Your task to perform on an android device: change text size in settings app Image 0: 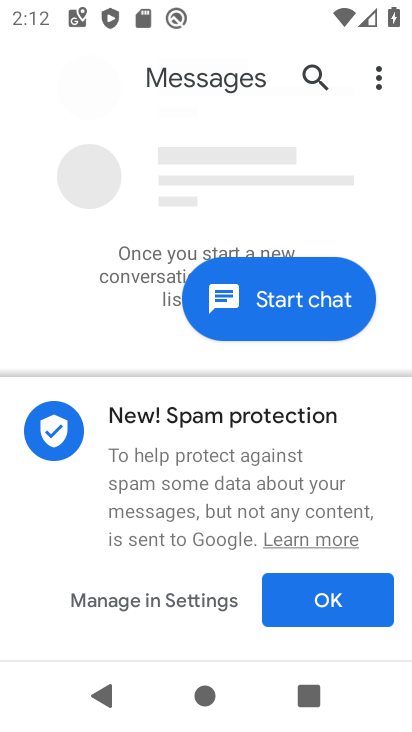
Step 0: press home button
Your task to perform on an android device: change text size in settings app Image 1: 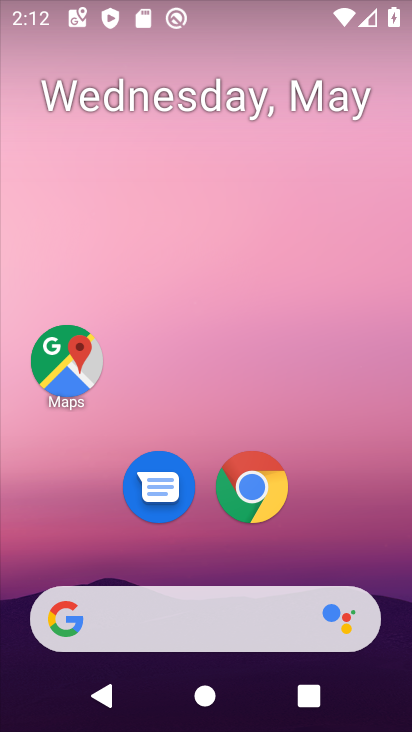
Step 1: drag from (337, 542) to (294, 45)
Your task to perform on an android device: change text size in settings app Image 2: 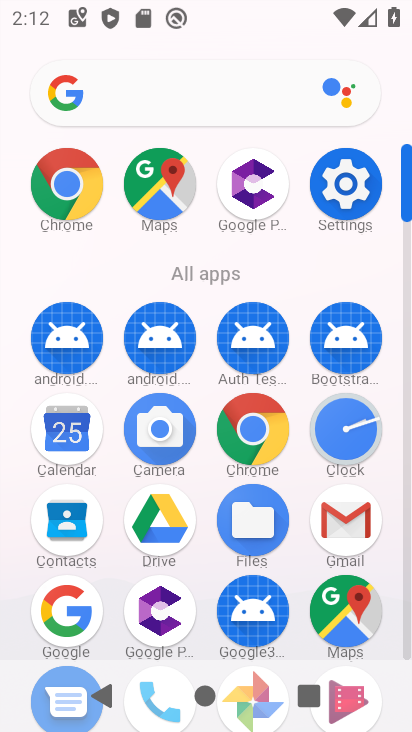
Step 2: click (364, 173)
Your task to perform on an android device: change text size in settings app Image 3: 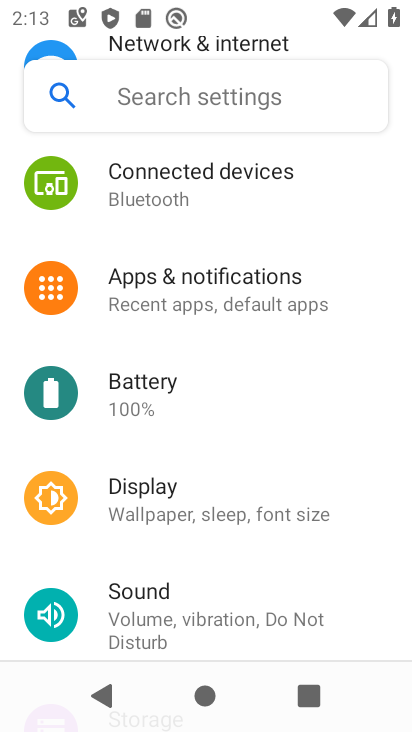
Step 3: click (262, 487)
Your task to perform on an android device: change text size in settings app Image 4: 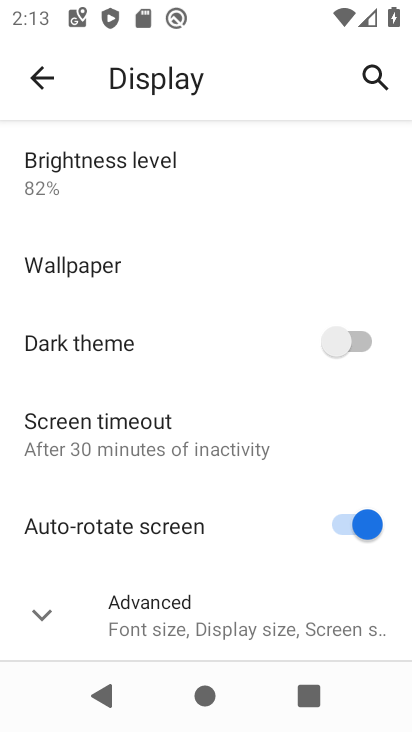
Step 4: drag from (265, 602) to (300, 228)
Your task to perform on an android device: change text size in settings app Image 5: 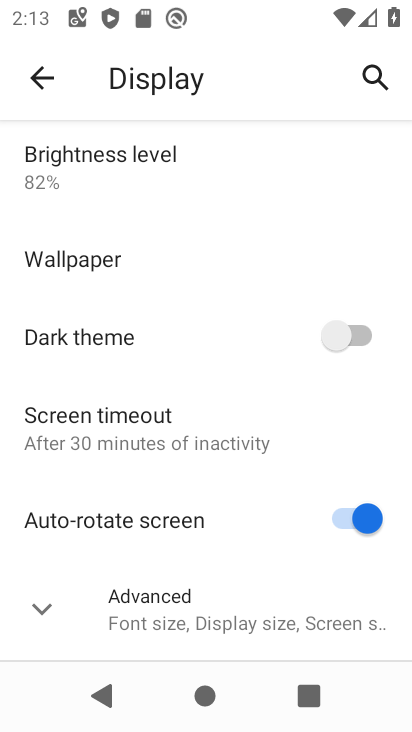
Step 5: click (197, 616)
Your task to perform on an android device: change text size in settings app Image 6: 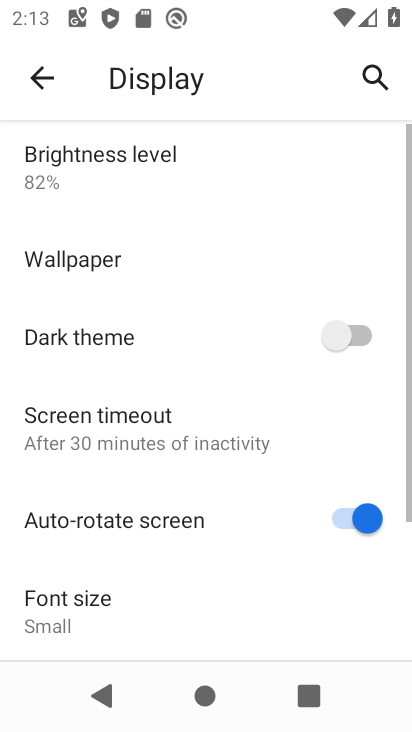
Step 6: drag from (197, 616) to (210, 238)
Your task to perform on an android device: change text size in settings app Image 7: 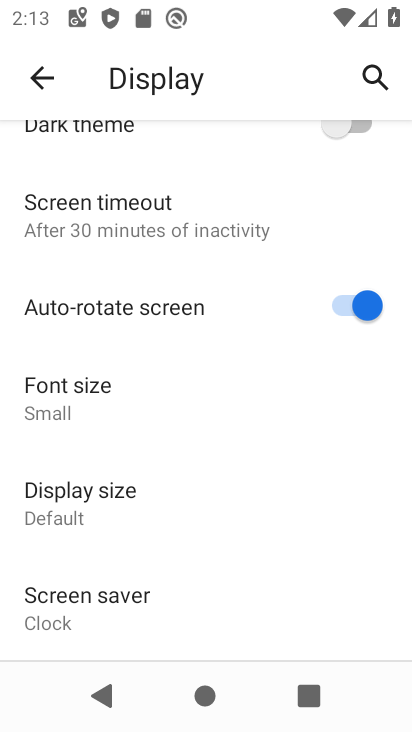
Step 7: click (72, 386)
Your task to perform on an android device: change text size in settings app Image 8: 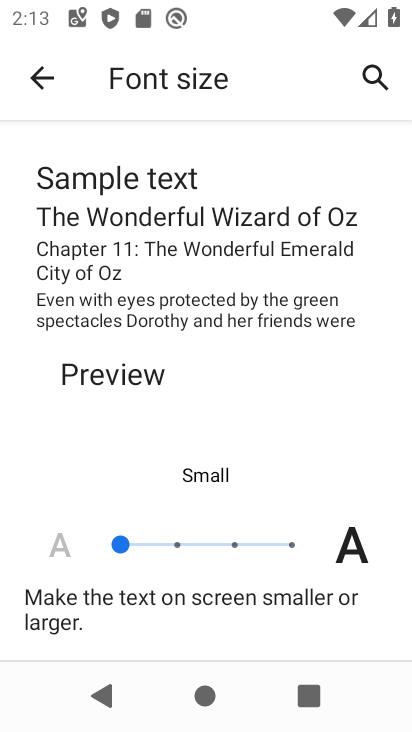
Step 8: click (187, 544)
Your task to perform on an android device: change text size in settings app Image 9: 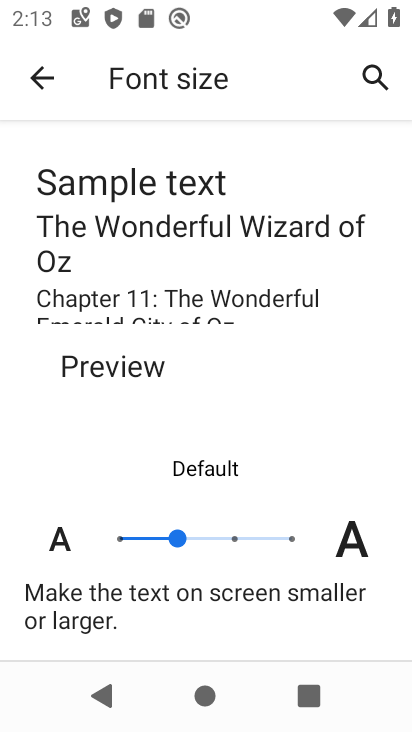
Step 9: task complete